Your task to perform on an android device: turn pop-ups on in chrome Image 0: 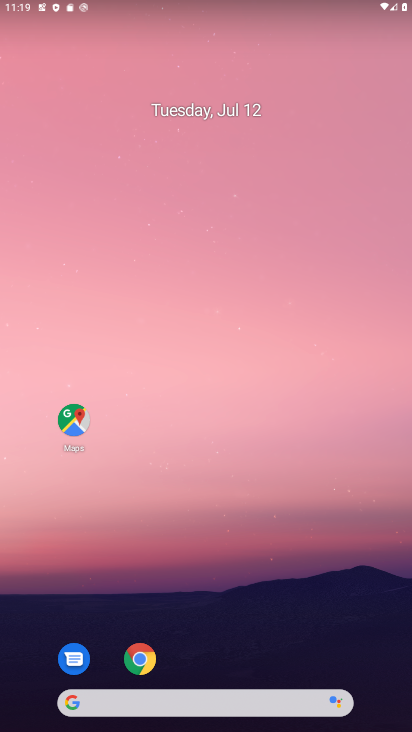
Step 0: drag from (308, 686) to (290, 0)
Your task to perform on an android device: turn pop-ups on in chrome Image 1: 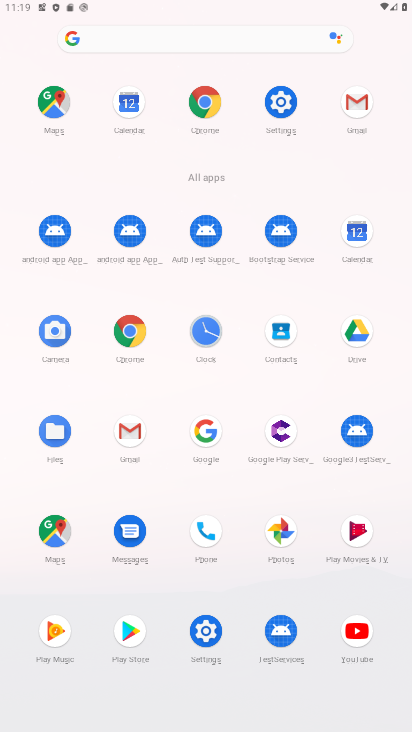
Step 1: click (128, 320)
Your task to perform on an android device: turn pop-ups on in chrome Image 2: 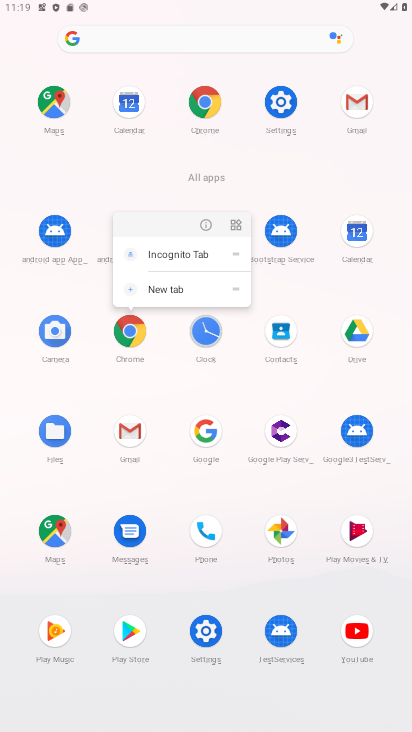
Step 2: click (133, 334)
Your task to perform on an android device: turn pop-ups on in chrome Image 3: 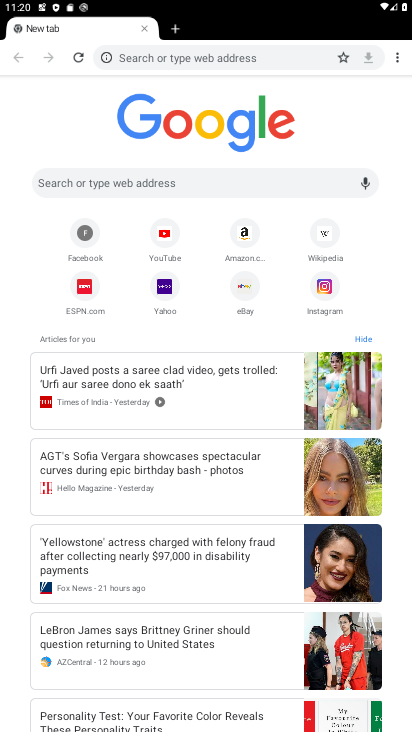
Step 3: drag from (397, 56) to (298, 268)
Your task to perform on an android device: turn pop-ups on in chrome Image 4: 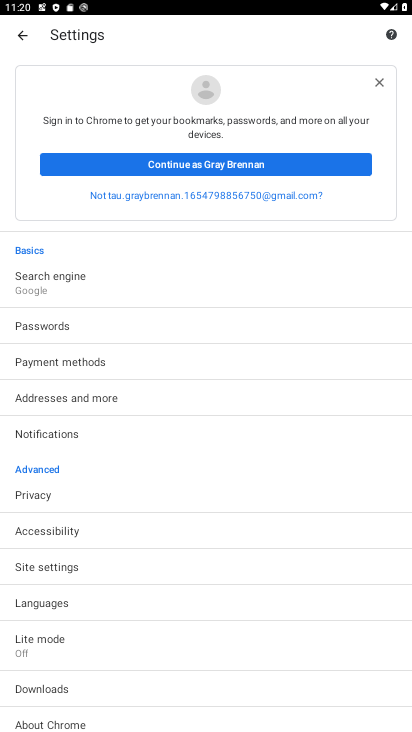
Step 4: click (78, 565)
Your task to perform on an android device: turn pop-ups on in chrome Image 5: 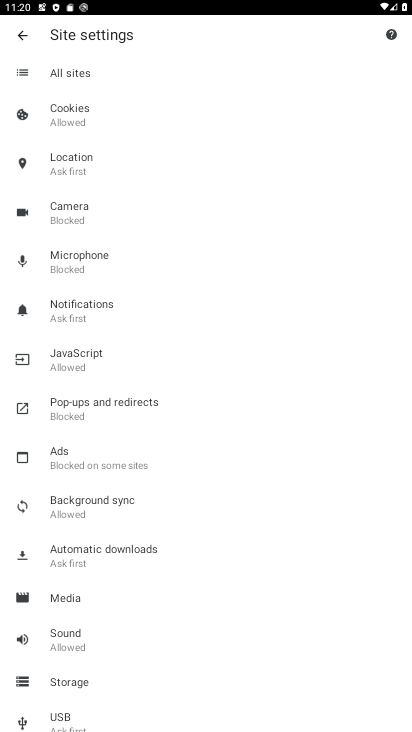
Step 5: click (111, 403)
Your task to perform on an android device: turn pop-ups on in chrome Image 6: 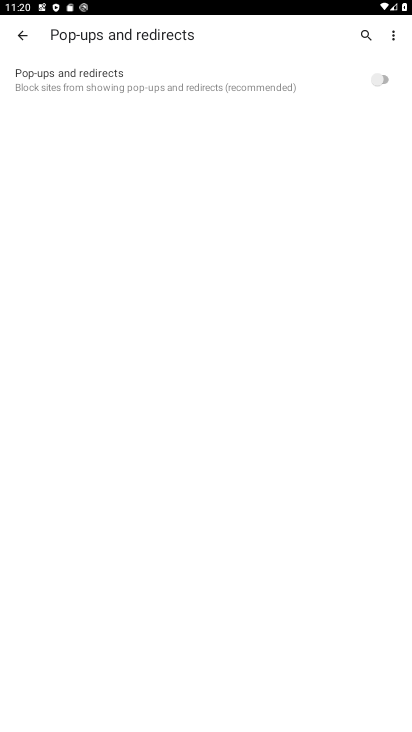
Step 6: click (385, 81)
Your task to perform on an android device: turn pop-ups on in chrome Image 7: 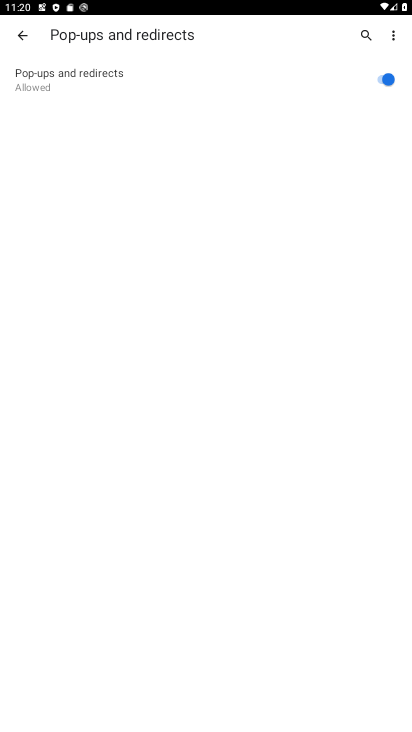
Step 7: task complete